Your task to perform on an android device: Go to Yahoo.com Image 0: 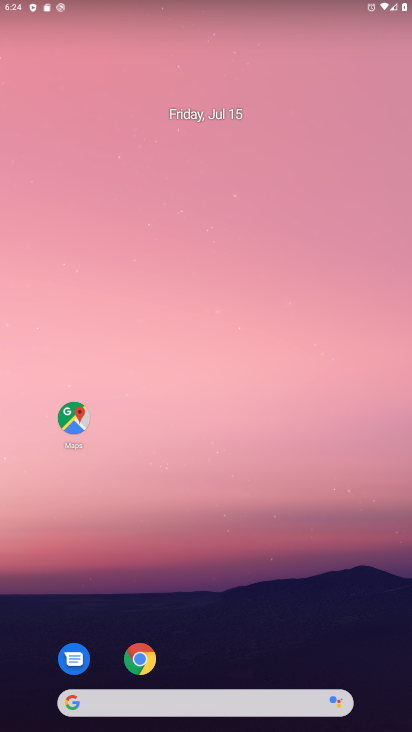
Step 0: click (136, 659)
Your task to perform on an android device: Go to Yahoo.com Image 1: 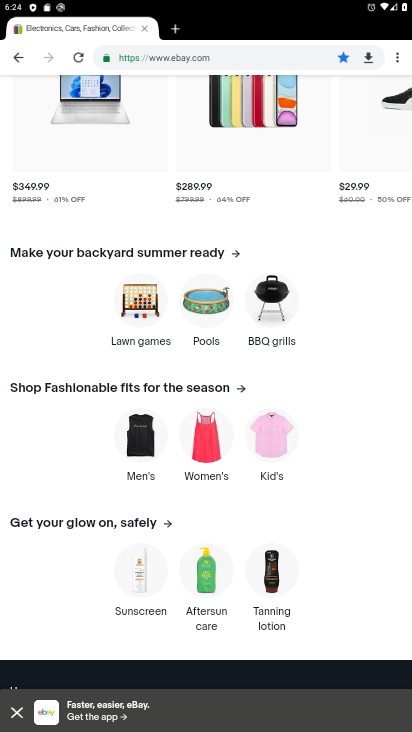
Step 1: click (252, 61)
Your task to perform on an android device: Go to Yahoo.com Image 2: 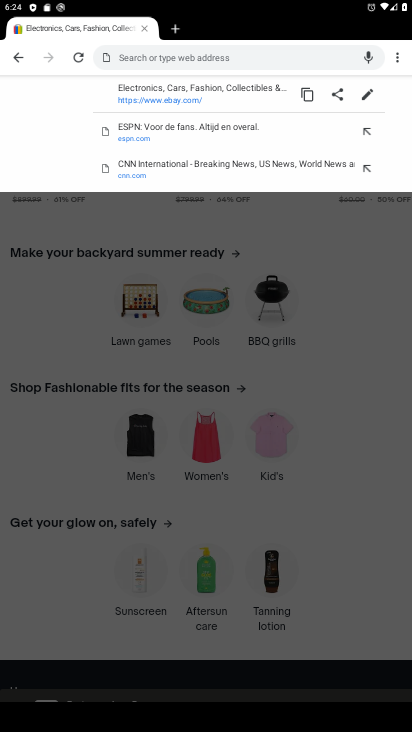
Step 2: type "yahoo.com"
Your task to perform on an android device: Go to Yahoo.com Image 3: 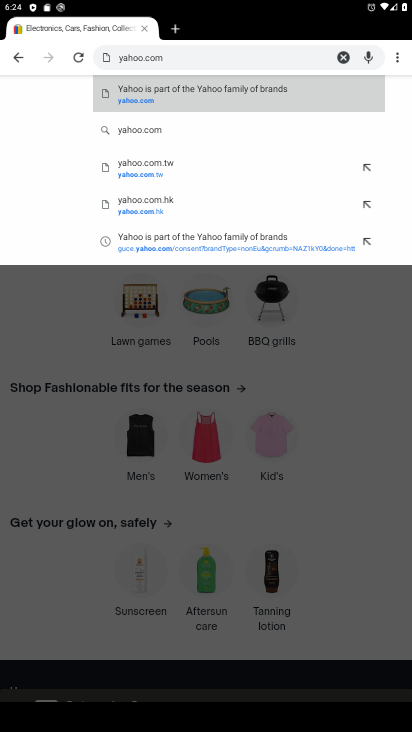
Step 3: click (134, 83)
Your task to perform on an android device: Go to Yahoo.com Image 4: 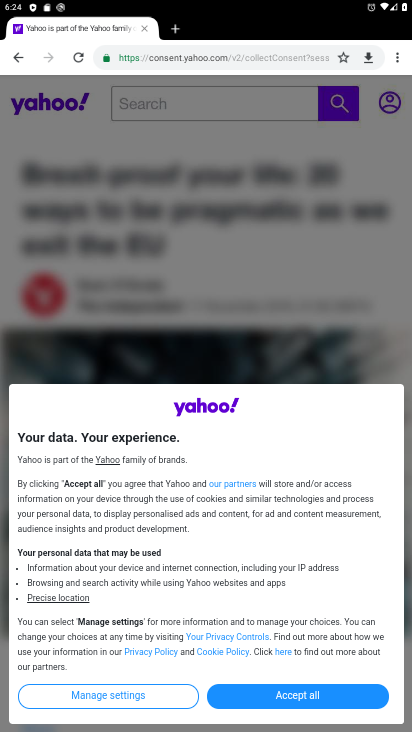
Step 4: click (287, 701)
Your task to perform on an android device: Go to Yahoo.com Image 5: 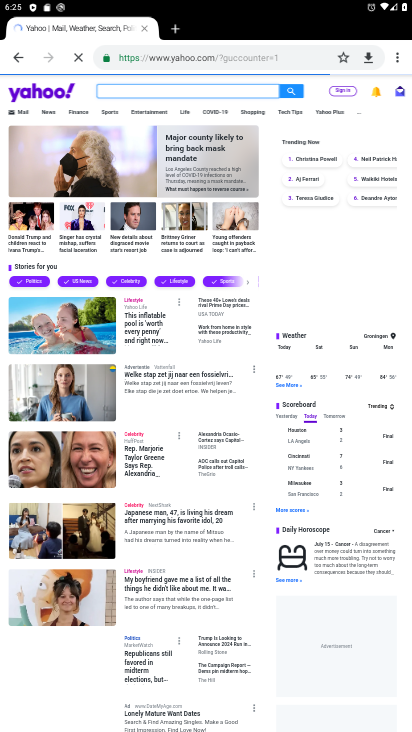
Step 5: task complete